Your task to perform on an android device: empty trash in google photos Image 0: 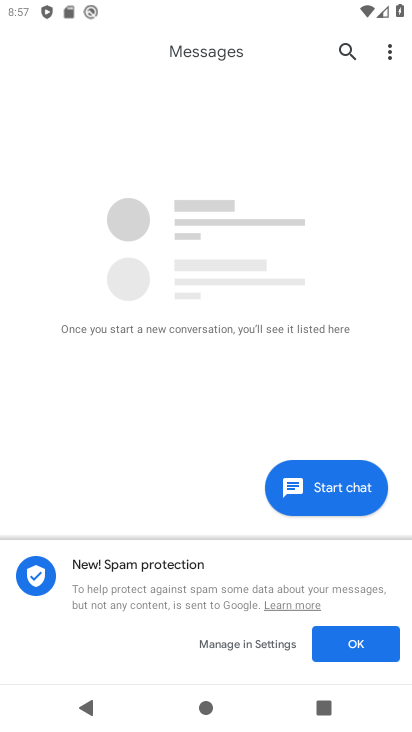
Step 0: press home button
Your task to perform on an android device: empty trash in google photos Image 1: 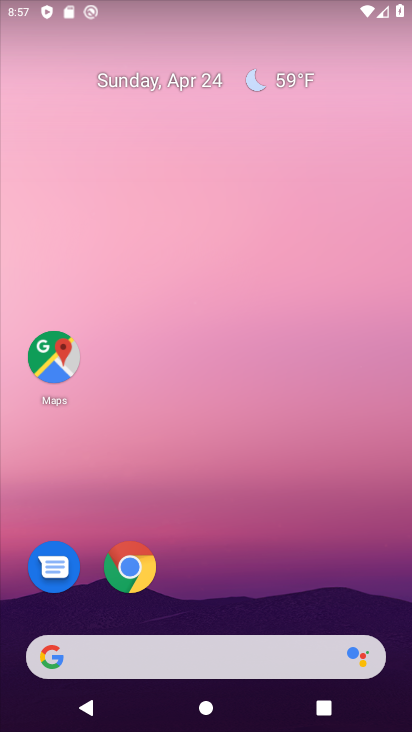
Step 1: drag from (364, 599) to (383, 261)
Your task to perform on an android device: empty trash in google photos Image 2: 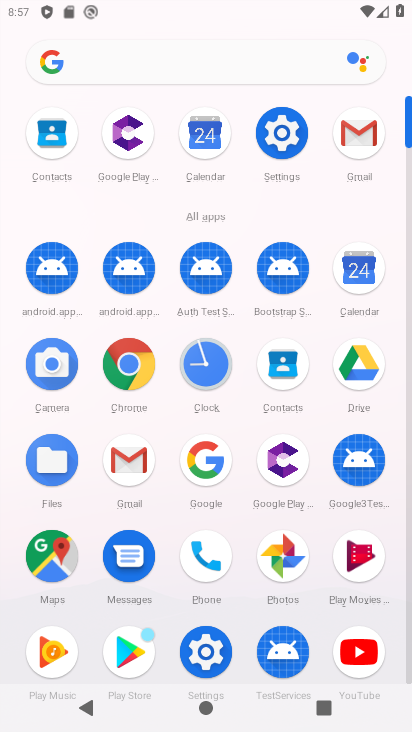
Step 2: click (263, 557)
Your task to perform on an android device: empty trash in google photos Image 3: 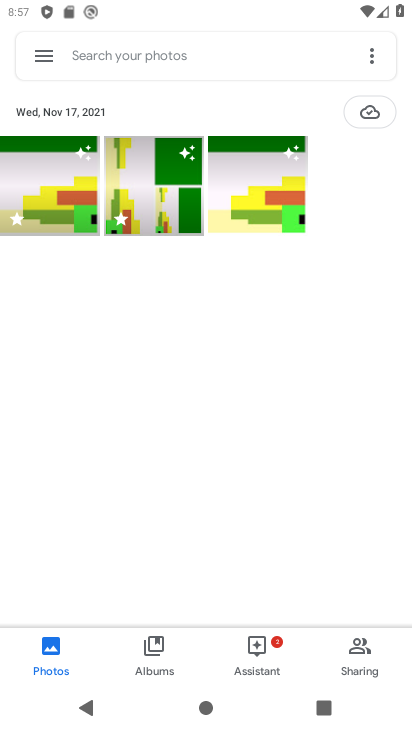
Step 3: click (38, 47)
Your task to perform on an android device: empty trash in google photos Image 4: 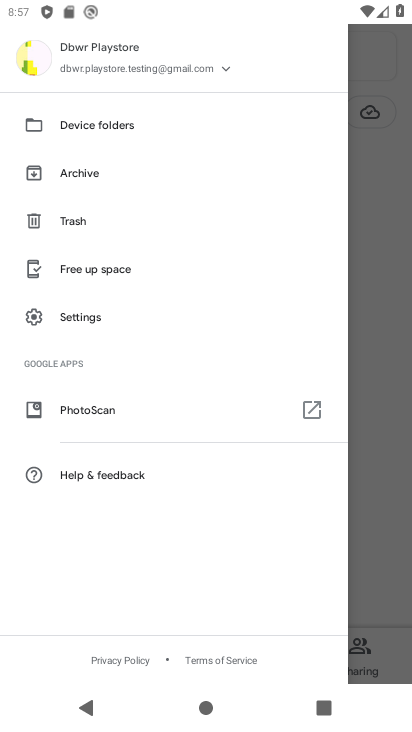
Step 4: click (71, 223)
Your task to perform on an android device: empty trash in google photos Image 5: 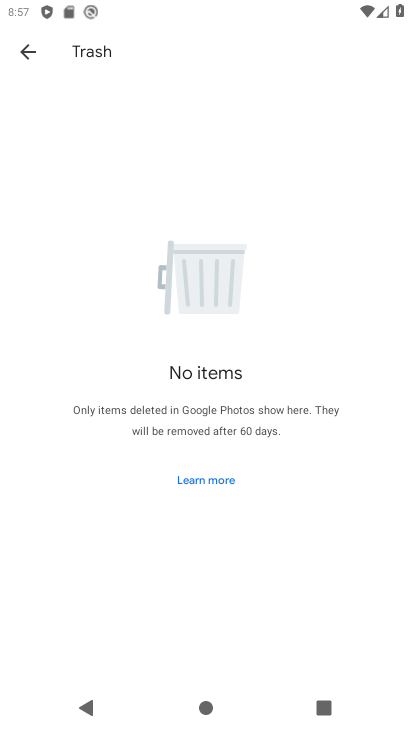
Step 5: task complete